Your task to perform on an android device: turn on showing notifications on the lock screen Image 0: 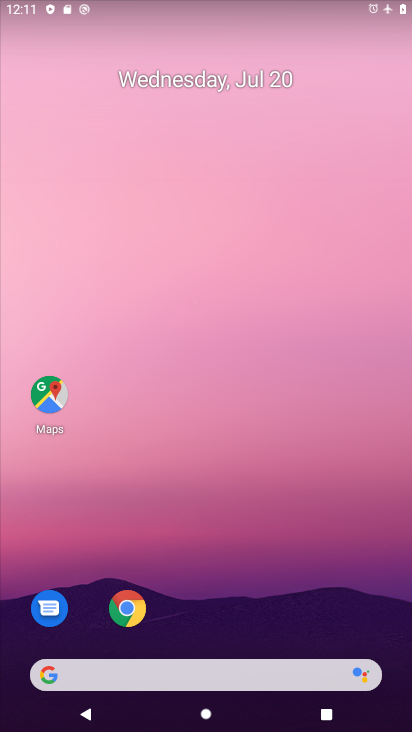
Step 0: drag from (184, 680) to (399, 152)
Your task to perform on an android device: turn on showing notifications on the lock screen Image 1: 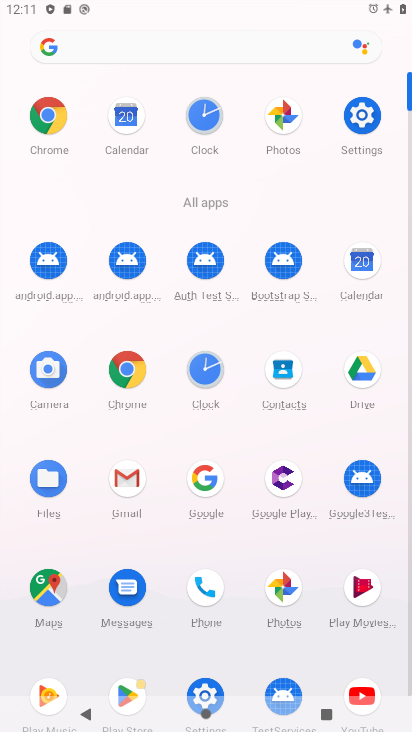
Step 1: click (363, 116)
Your task to perform on an android device: turn on showing notifications on the lock screen Image 2: 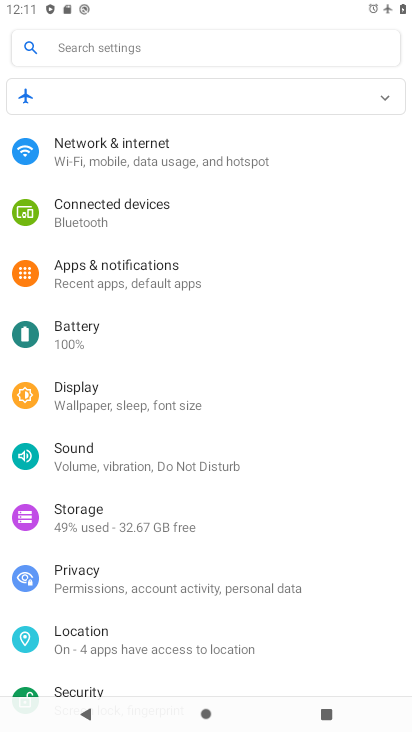
Step 2: click (147, 273)
Your task to perform on an android device: turn on showing notifications on the lock screen Image 3: 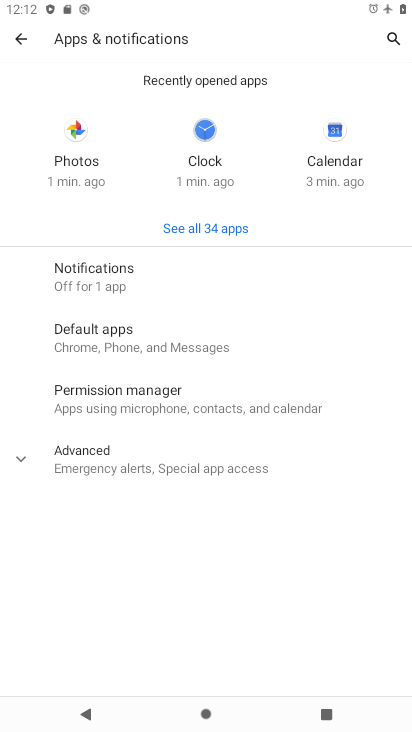
Step 3: click (106, 270)
Your task to perform on an android device: turn on showing notifications on the lock screen Image 4: 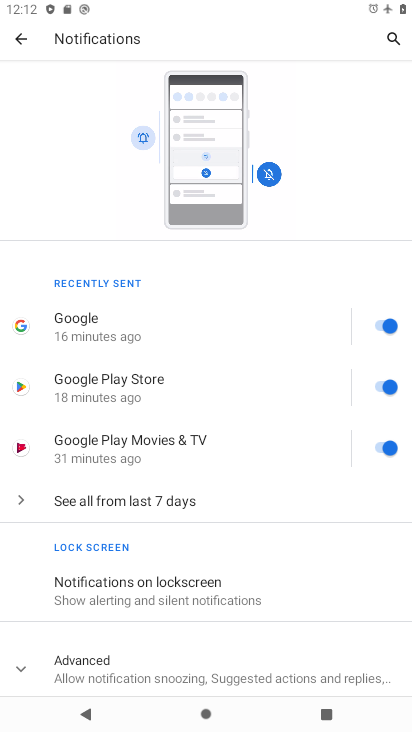
Step 4: click (132, 586)
Your task to perform on an android device: turn on showing notifications on the lock screen Image 5: 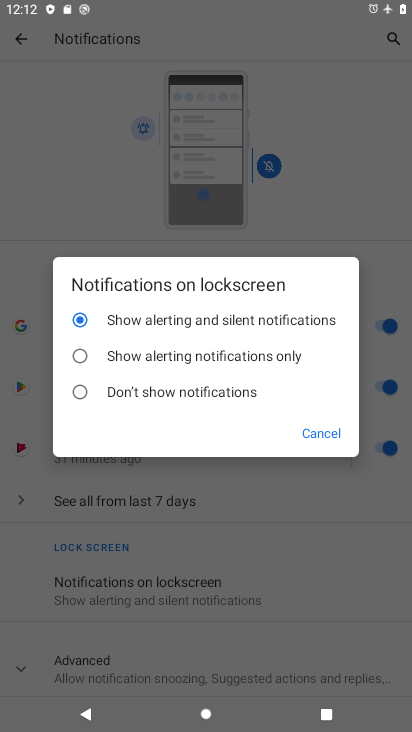
Step 5: click (83, 318)
Your task to perform on an android device: turn on showing notifications on the lock screen Image 6: 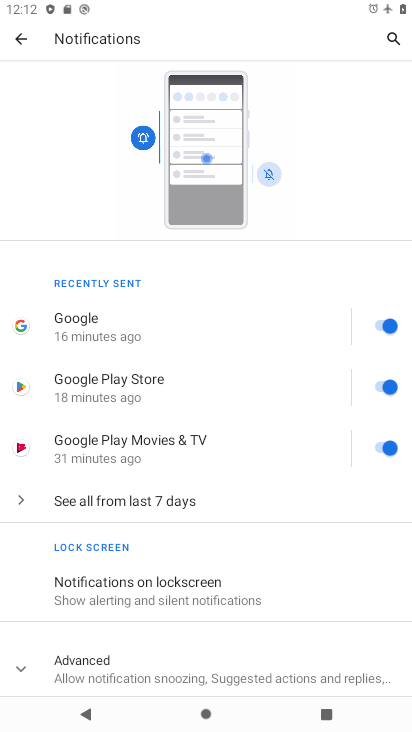
Step 6: task complete